Your task to perform on an android device: add a contact in the contacts app Image 0: 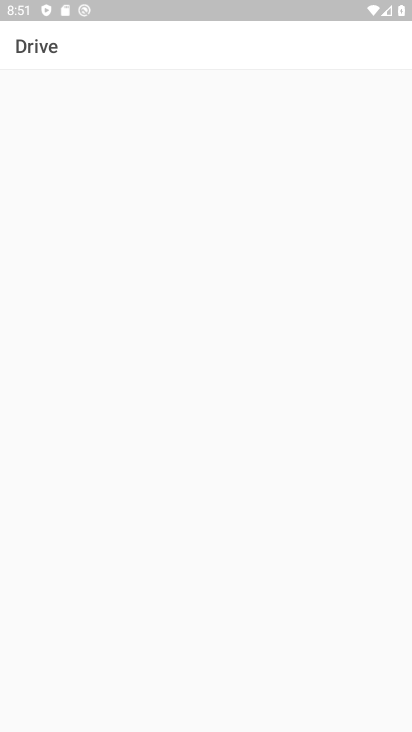
Step 0: press home button
Your task to perform on an android device: add a contact in the contacts app Image 1: 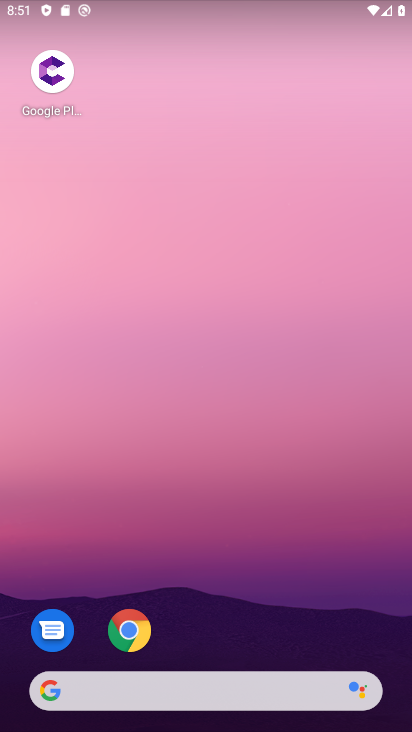
Step 1: drag from (224, 674) to (299, 31)
Your task to perform on an android device: add a contact in the contacts app Image 2: 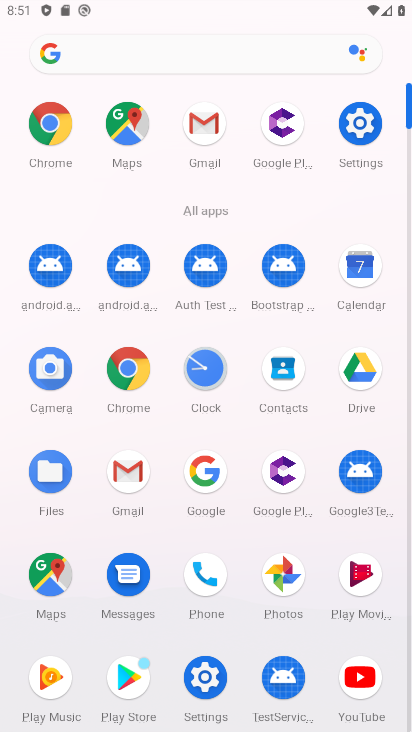
Step 2: click (282, 359)
Your task to perform on an android device: add a contact in the contacts app Image 3: 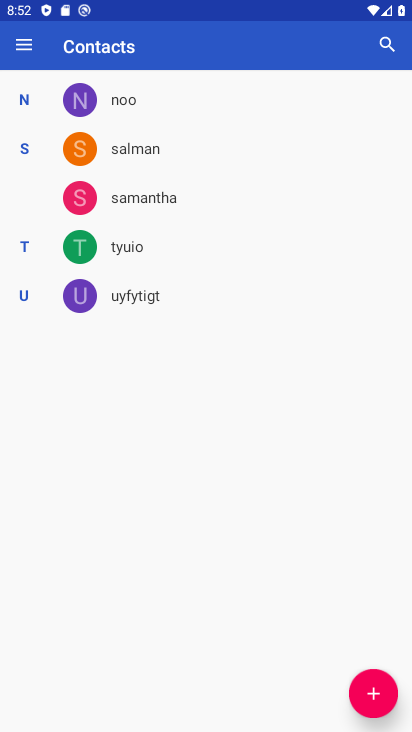
Step 3: click (380, 690)
Your task to perform on an android device: add a contact in the contacts app Image 4: 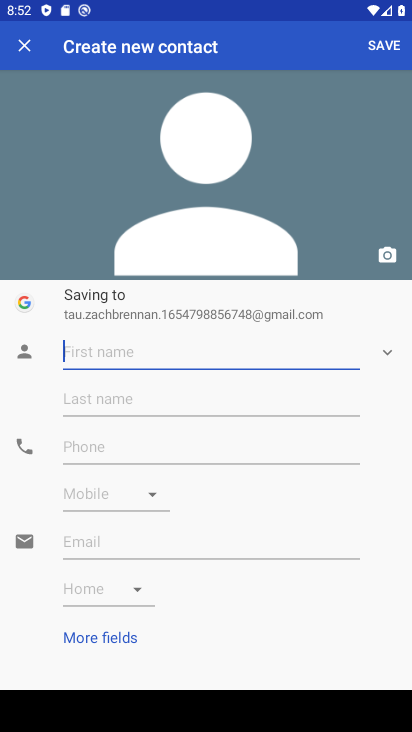
Step 4: type "kjsn"
Your task to perform on an android device: add a contact in the contacts app Image 5: 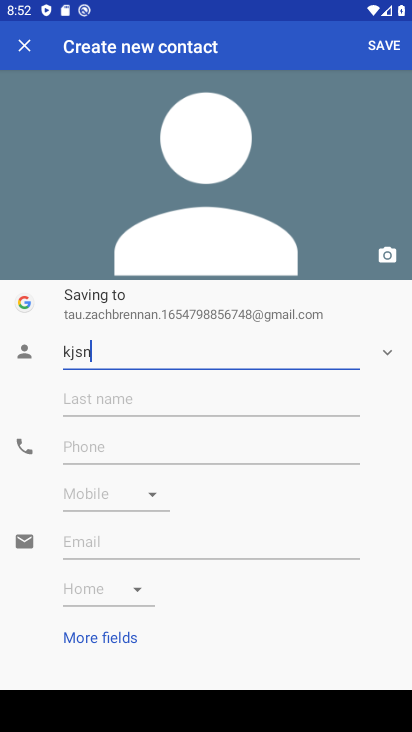
Step 5: click (105, 437)
Your task to perform on an android device: add a contact in the contacts app Image 6: 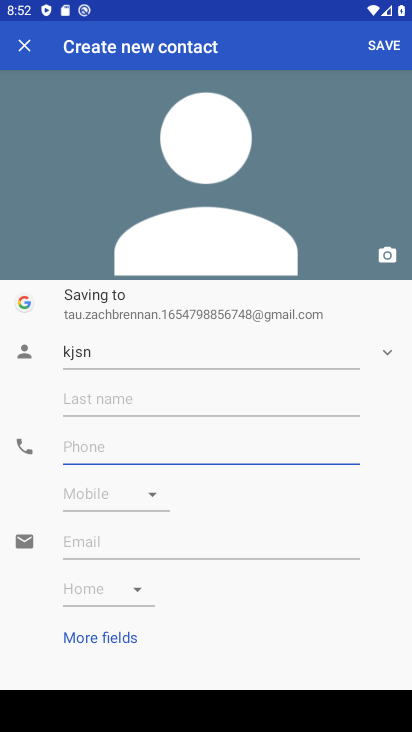
Step 6: type "9984"
Your task to perform on an android device: add a contact in the contacts app Image 7: 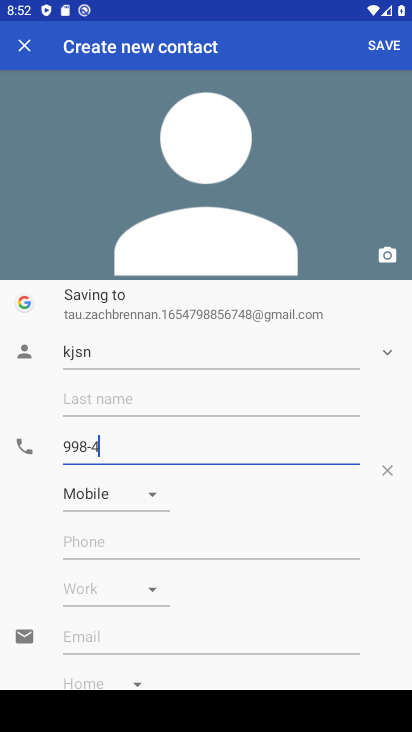
Step 7: click (382, 43)
Your task to perform on an android device: add a contact in the contacts app Image 8: 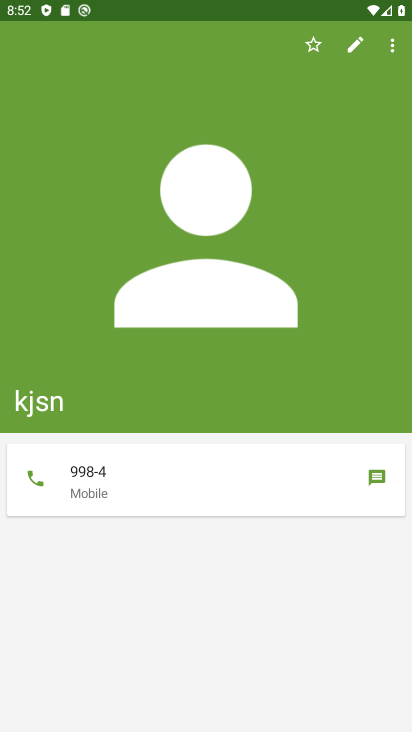
Step 8: task complete